Your task to perform on an android device: choose inbox layout in the gmail app Image 0: 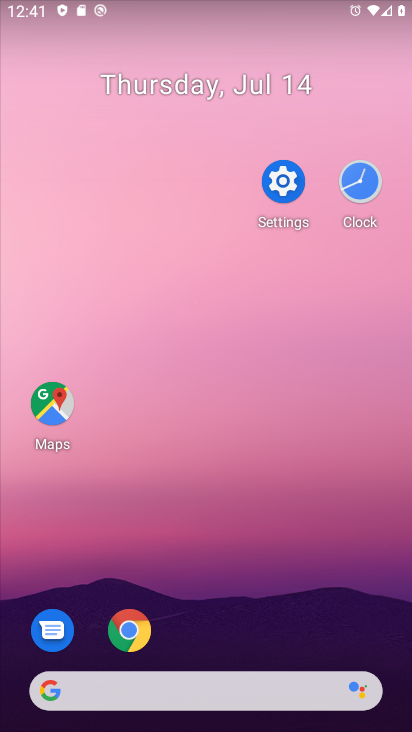
Step 0: drag from (213, 607) to (268, 35)
Your task to perform on an android device: choose inbox layout in the gmail app Image 1: 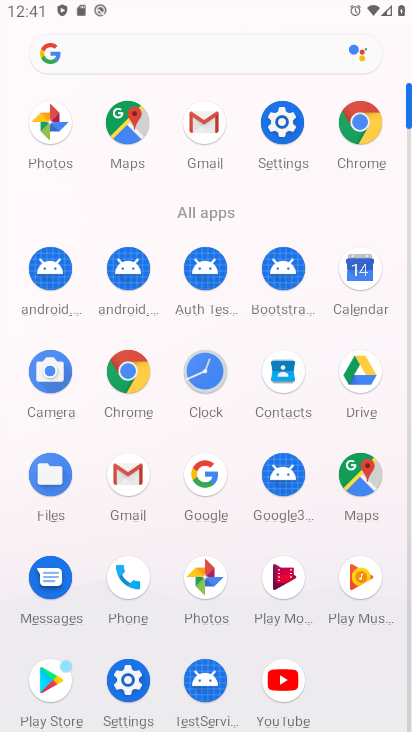
Step 1: drag from (135, 462) to (203, 231)
Your task to perform on an android device: choose inbox layout in the gmail app Image 2: 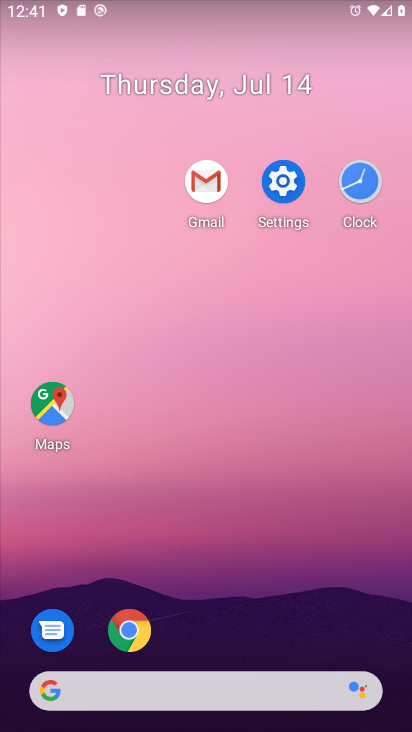
Step 2: click (202, 192)
Your task to perform on an android device: choose inbox layout in the gmail app Image 3: 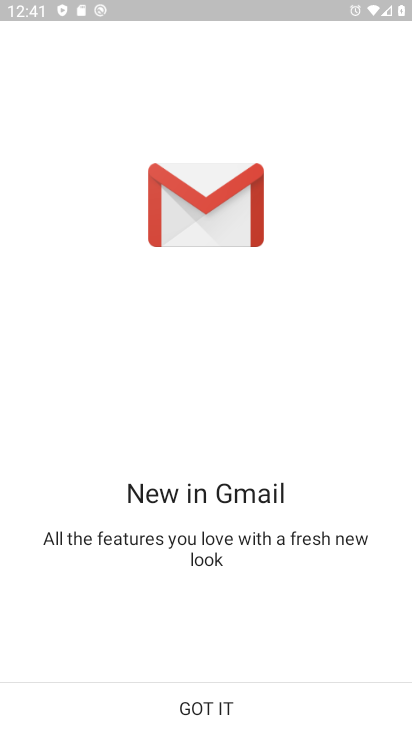
Step 3: click (261, 695)
Your task to perform on an android device: choose inbox layout in the gmail app Image 4: 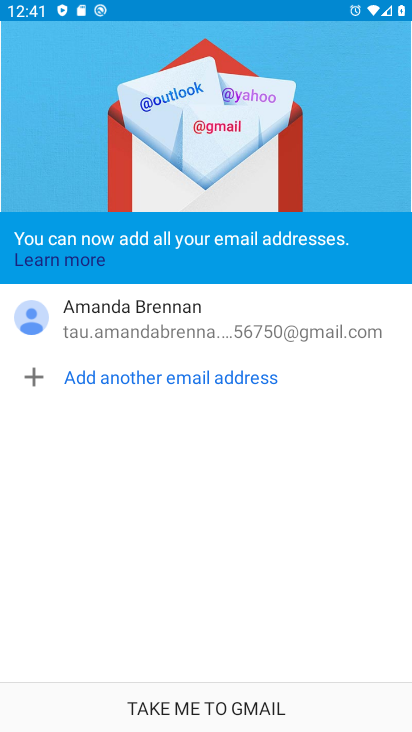
Step 4: click (229, 711)
Your task to perform on an android device: choose inbox layout in the gmail app Image 5: 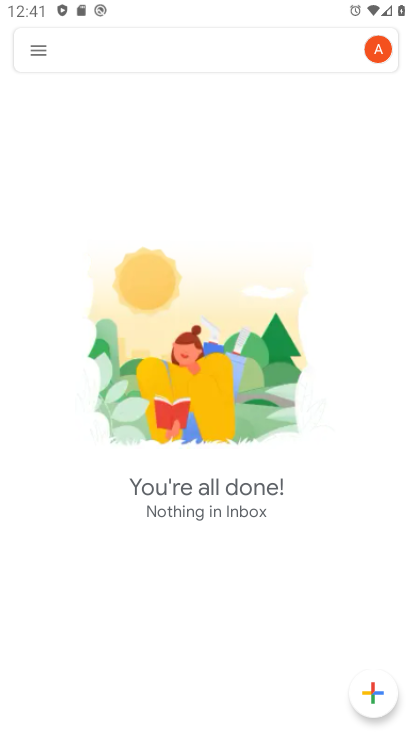
Step 5: click (49, 42)
Your task to perform on an android device: choose inbox layout in the gmail app Image 6: 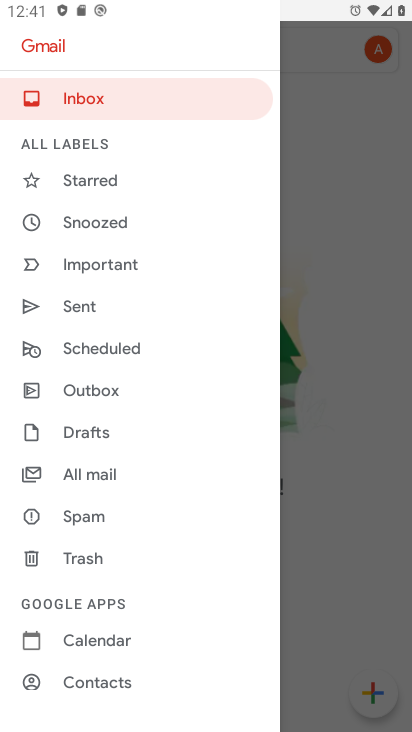
Step 6: click (217, 194)
Your task to perform on an android device: choose inbox layout in the gmail app Image 7: 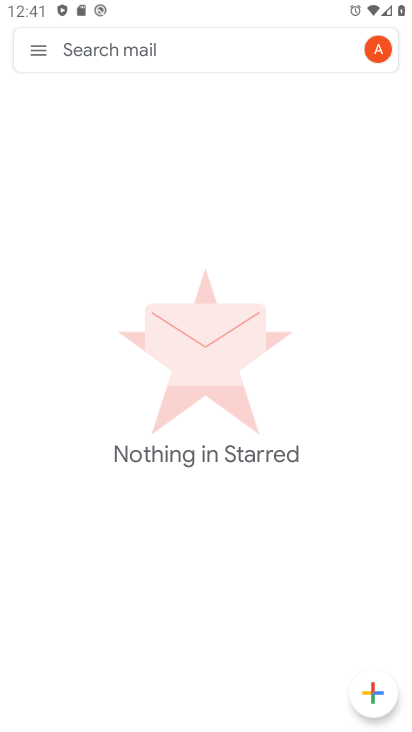
Step 7: click (22, 64)
Your task to perform on an android device: choose inbox layout in the gmail app Image 8: 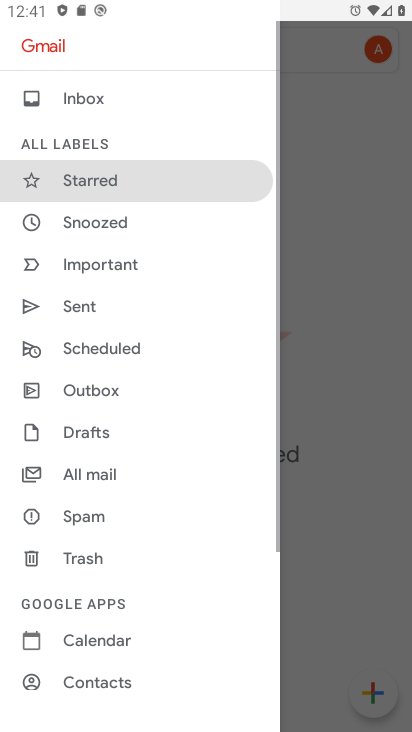
Step 8: drag from (160, 653) to (152, 259)
Your task to perform on an android device: choose inbox layout in the gmail app Image 9: 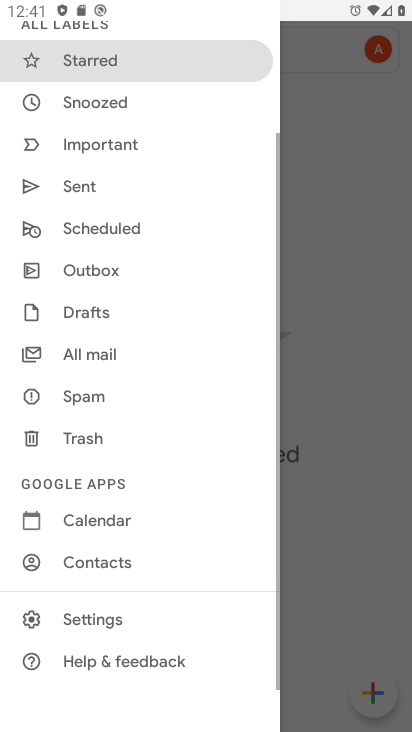
Step 9: click (164, 606)
Your task to perform on an android device: choose inbox layout in the gmail app Image 10: 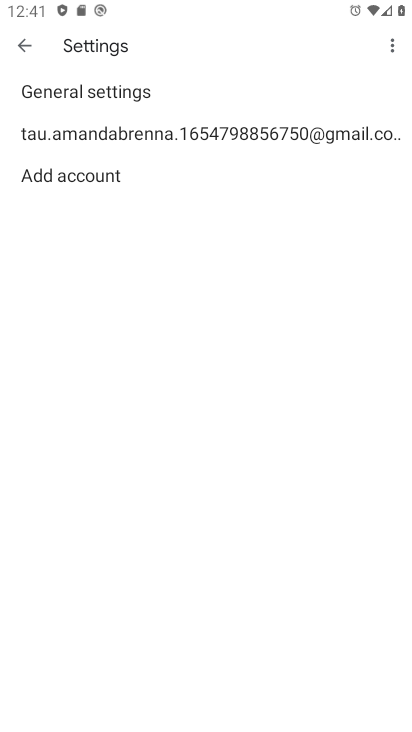
Step 10: click (114, 126)
Your task to perform on an android device: choose inbox layout in the gmail app Image 11: 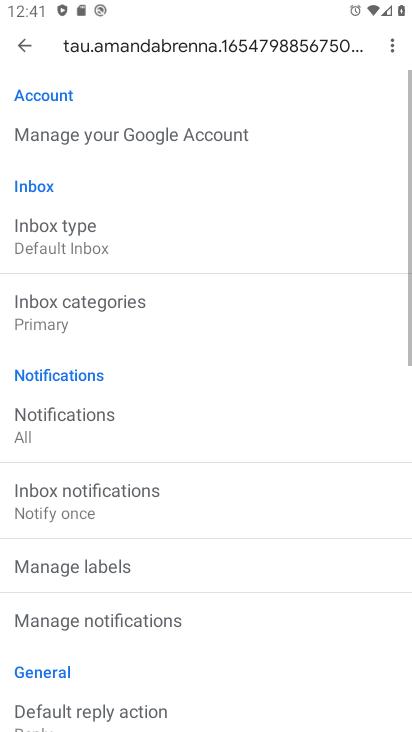
Step 11: click (151, 229)
Your task to perform on an android device: choose inbox layout in the gmail app Image 12: 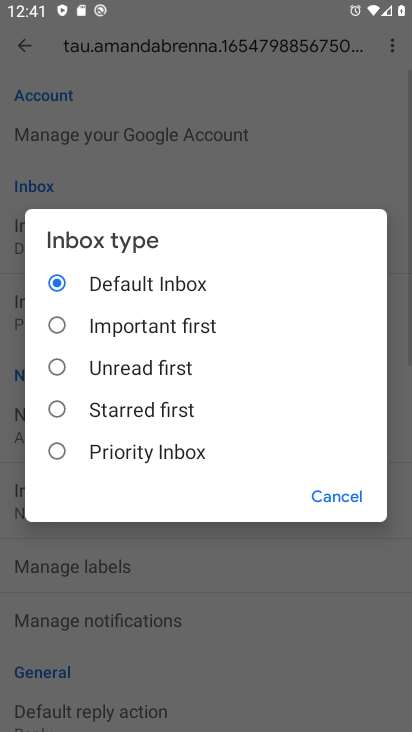
Step 12: task complete